Your task to perform on an android device: Open Yahoo.com Image 0: 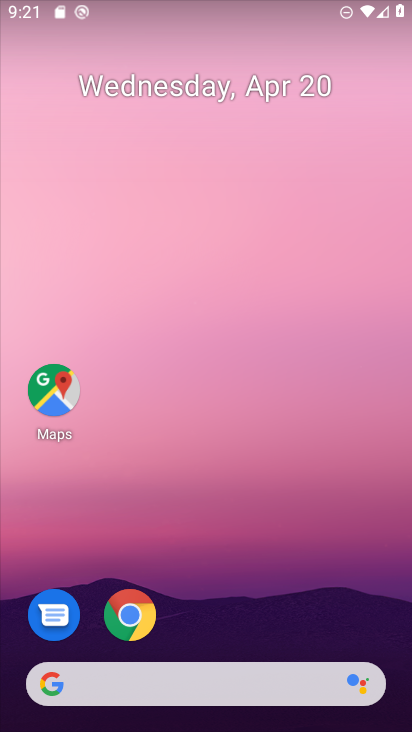
Step 0: click (128, 613)
Your task to perform on an android device: Open Yahoo.com Image 1: 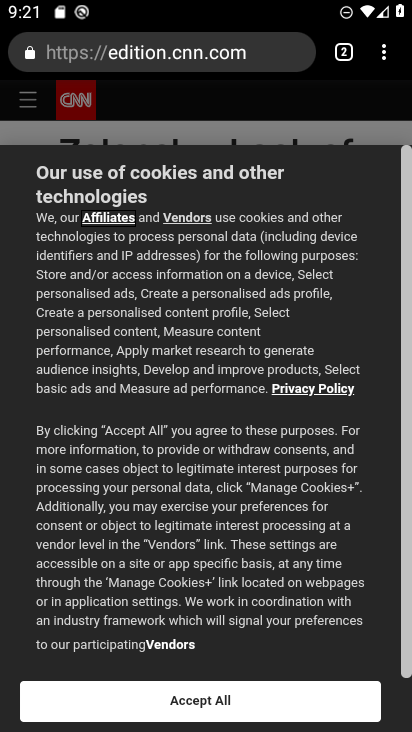
Step 1: click (253, 49)
Your task to perform on an android device: Open Yahoo.com Image 2: 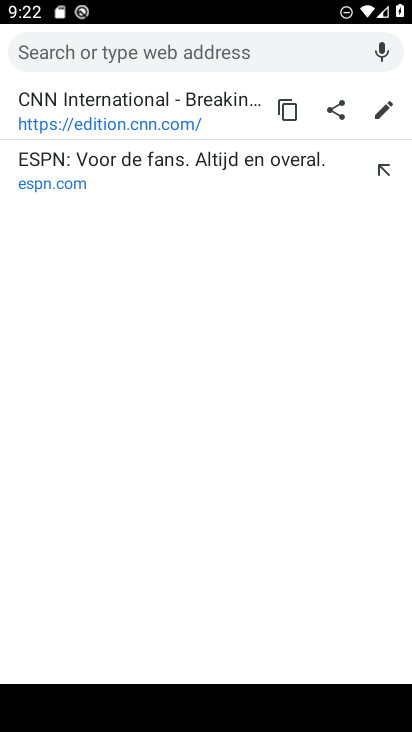
Step 2: type "Yahoo.com"
Your task to perform on an android device: Open Yahoo.com Image 3: 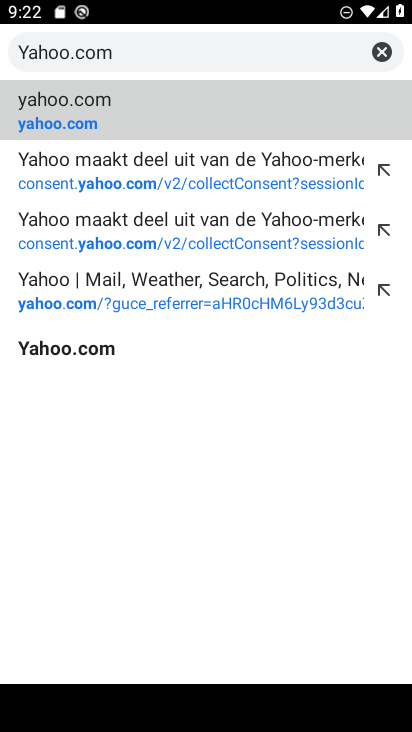
Step 3: click (125, 170)
Your task to perform on an android device: Open Yahoo.com Image 4: 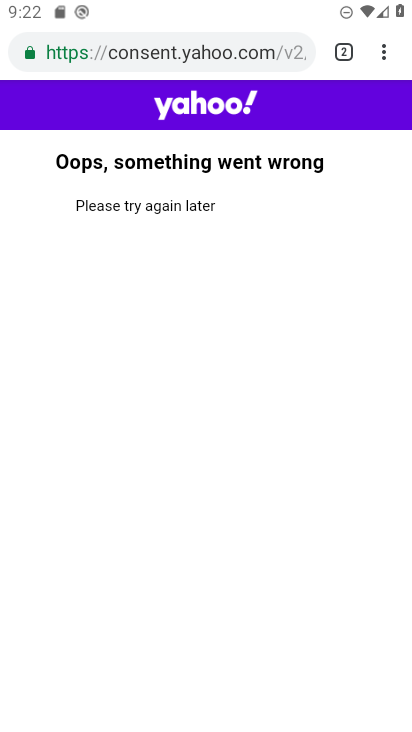
Step 4: task complete